Your task to perform on an android device: manage bookmarks in the chrome app Image 0: 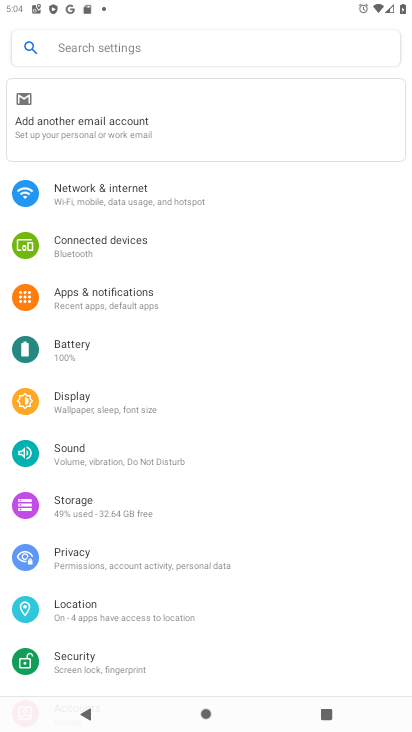
Step 0: press home button
Your task to perform on an android device: manage bookmarks in the chrome app Image 1: 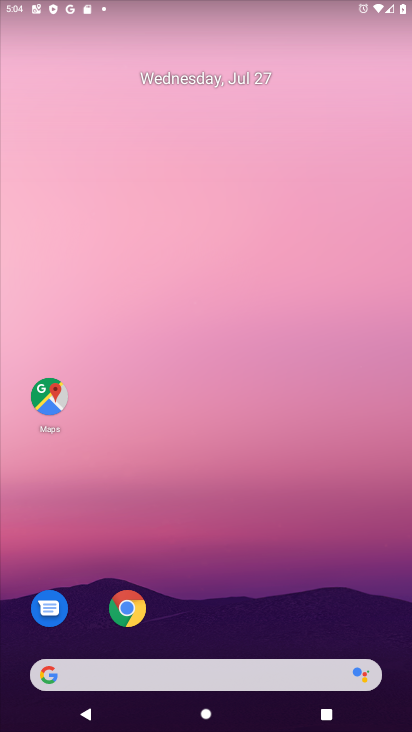
Step 1: click (121, 603)
Your task to perform on an android device: manage bookmarks in the chrome app Image 2: 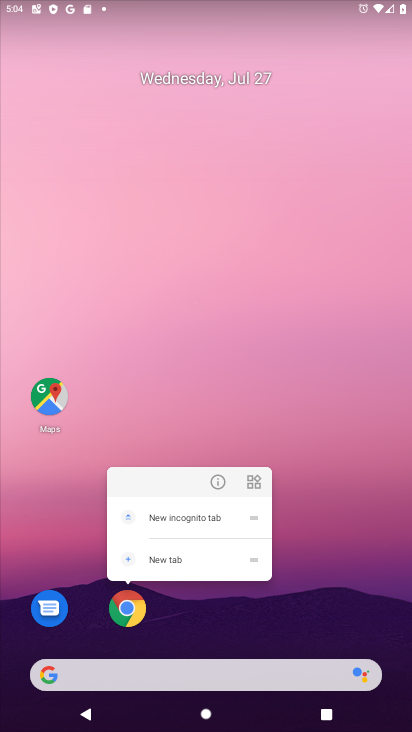
Step 2: click (126, 619)
Your task to perform on an android device: manage bookmarks in the chrome app Image 3: 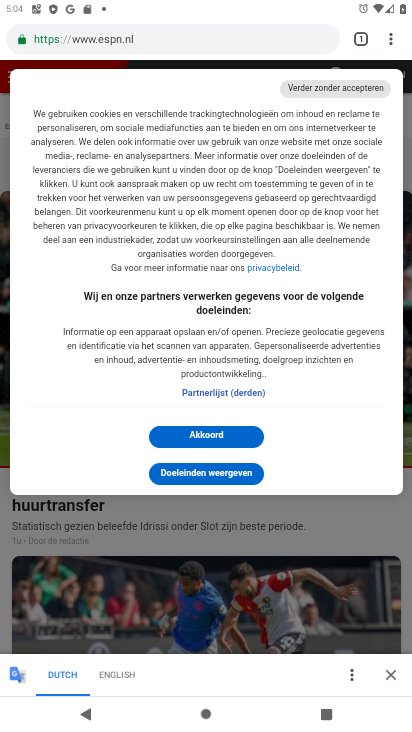
Step 3: click (388, 38)
Your task to perform on an android device: manage bookmarks in the chrome app Image 4: 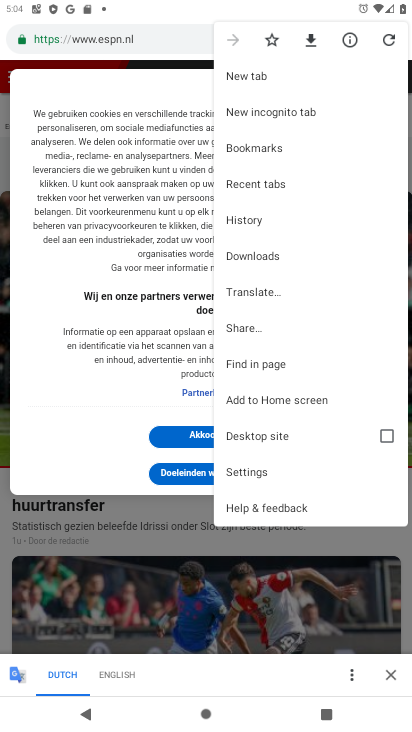
Step 4: click (236, 466)
Your task to perform on an android device: manage bookmarks in the chrome app Image 5: 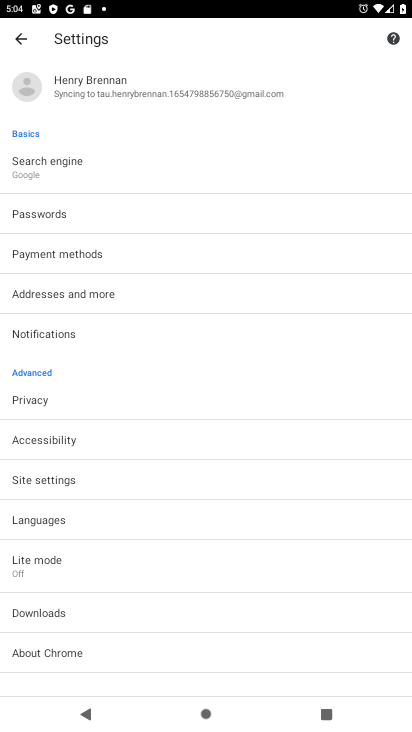
Step 5: click (26, 42)
Your task to perform on an android device: manage bookmarks in the chrome app Image 6: 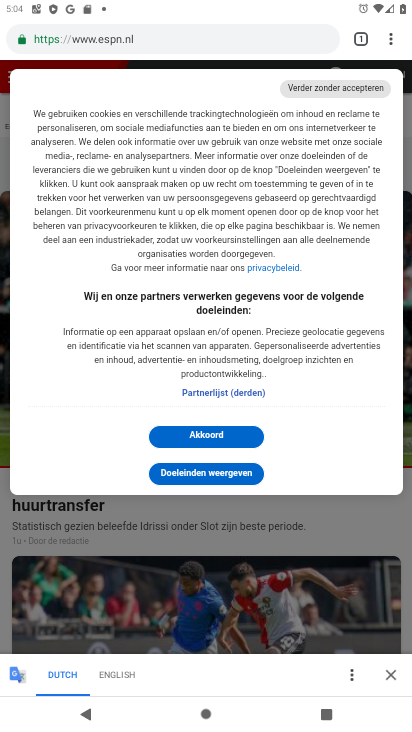
Step 6: click (391, 32)
Your task to perform on an android device: manage bookmarks in the chrome app Image 7: 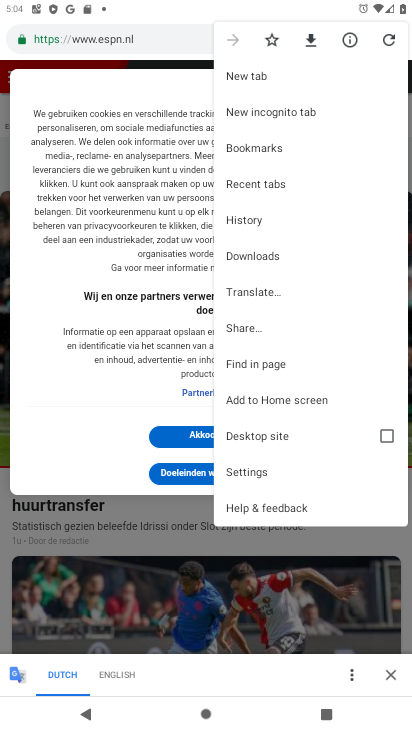
Step 7: click (249, 141)
Your task to perform on an android device: manage bookmarks in the chrome app Image 8: 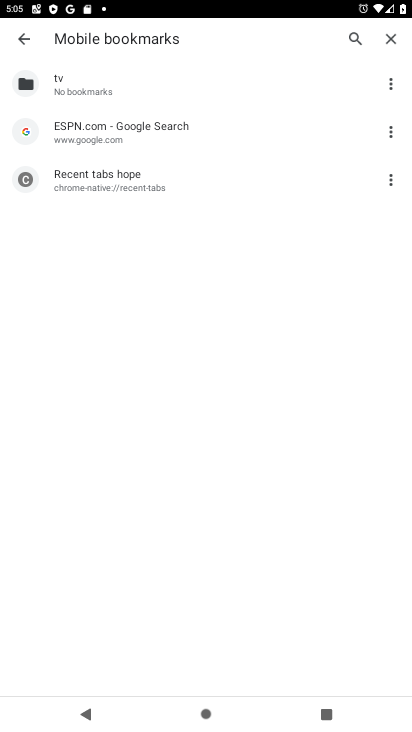
Step 8: task complete